Your task to perform on an android device: Go to CNN.com Image 0: 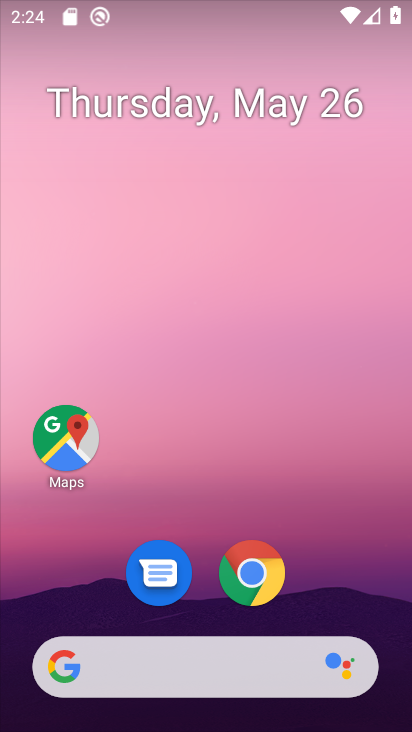
Step 0: click (250, 573)
Your task to perform on an android device: Go to CNN.com Image 1: 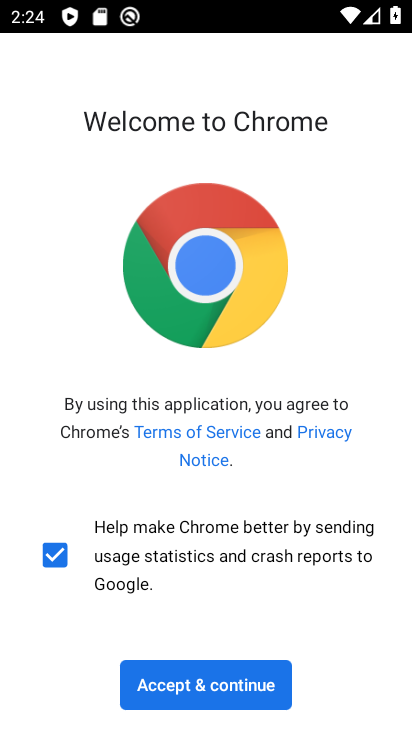
Step 1: click (192, 675)
Your task to perform on an android device: Go to CNN.com Image 2: 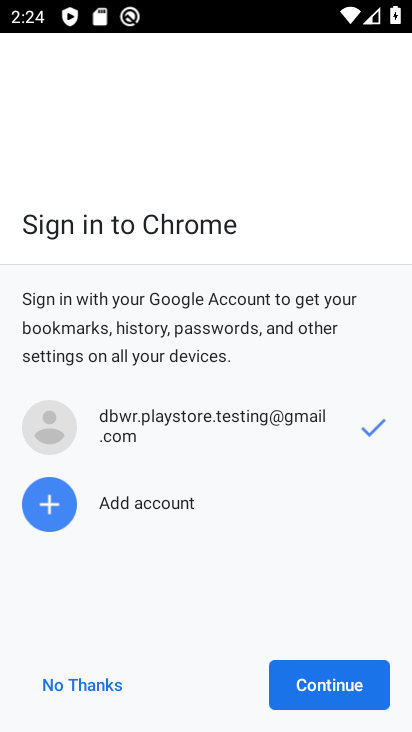
Step 2: click (319, 689)
Your task to perform on an android device: Go to CNN.com Image 3: 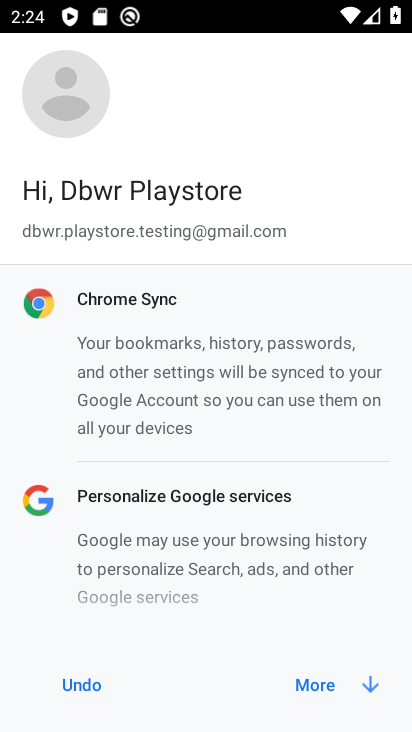
Step 3: click (319, 686)
Your task to perform on an android device: Go to CNN.com Image 4: 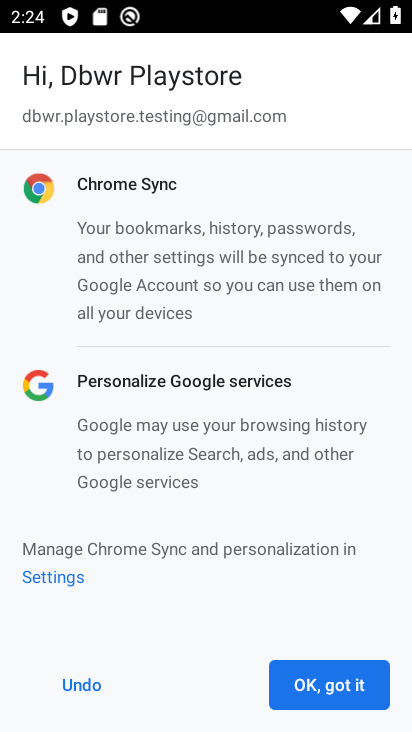
Step 4: click (319, 686)
Your task to perform on an android device: Go to CNN.com Image 5: 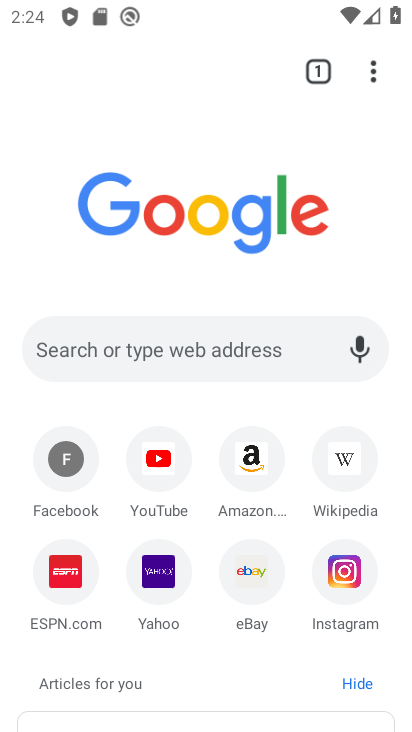
Step 5: click (246, 351)
Your task to perform on an android device: Go to CNN.com Image 6: 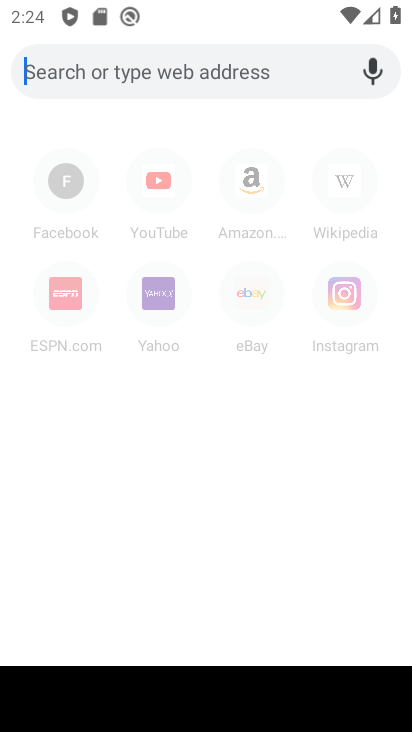
Step 6: type "CNN.com"
Your task to perform on an android device: Go to CNN.com Image 7: 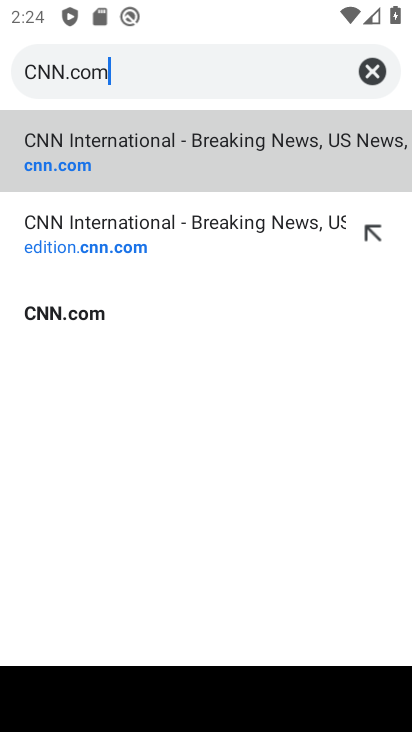
Step 7: click (56, 309)
Your task to perform on an android device: Go to CNN.com Image 8: 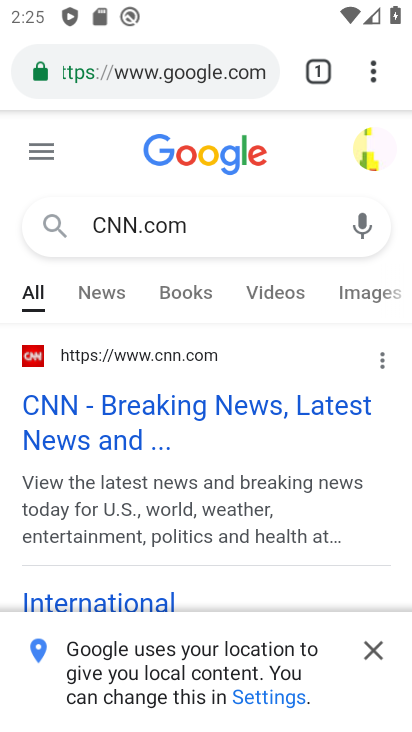
Step 8: click (369, 651)
Your task to perform on an android device: Go to CNN.com Image 9: 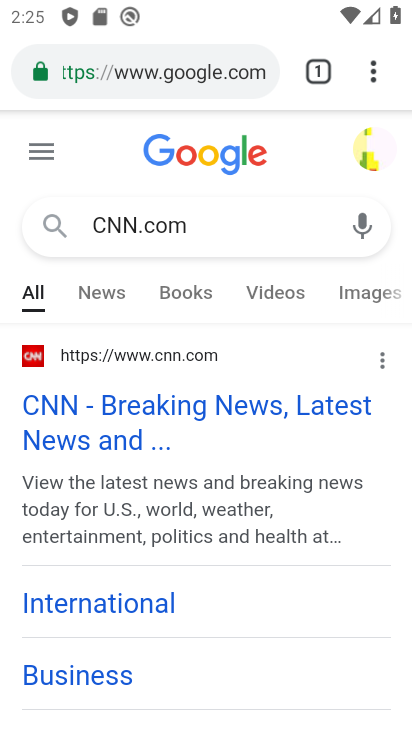
Step 9: click (136, 413)
Your task to perform on an android device: Go to CNN.com Image 10: 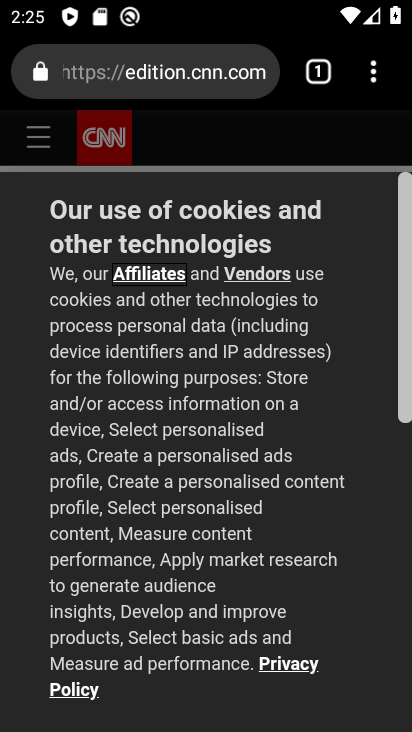
Step 10: task complete